Your task to perform on an android device: Open Yahoo.com Image 0: 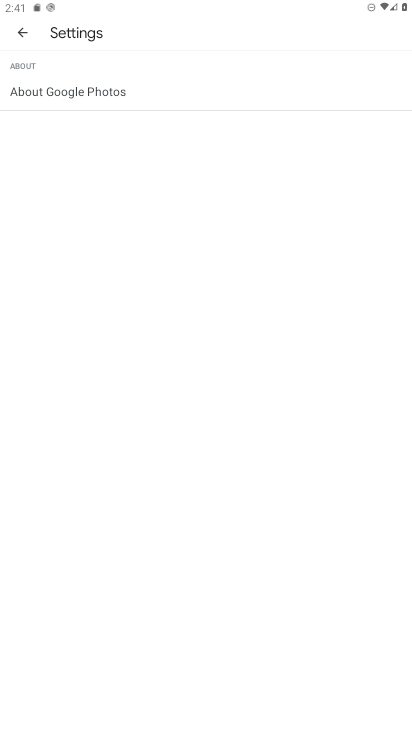
Step 0: press home button
Your task to perform on an android device: Open Yahoo.com Image 1: 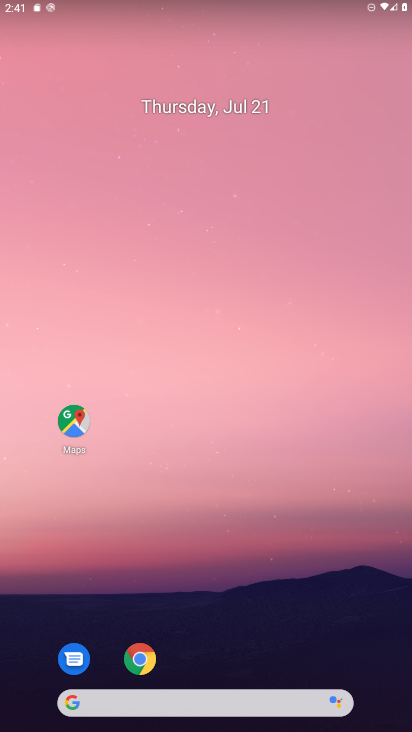
Step 1: click (137, 653)
Your task to perform on an android device: Open Yahoo.com Image 2: 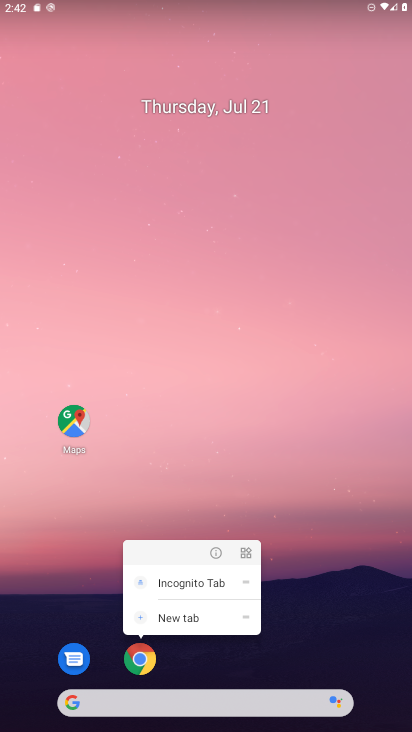
Step 2: click (126, 663)
Your task to perform on an android device: Open Yahoo.com Image 3: 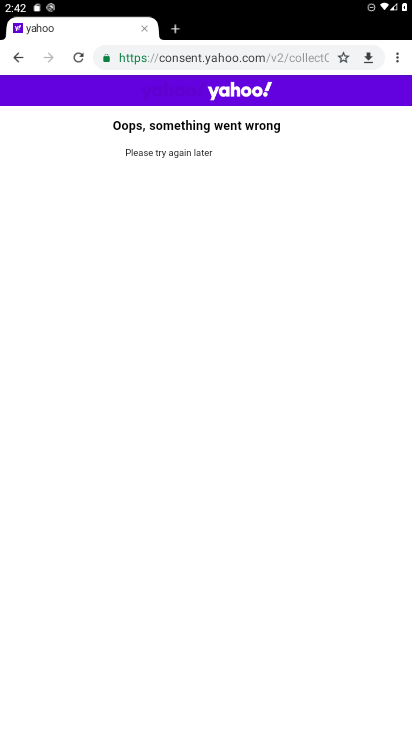
Step 3: task complete